Your task to perform on an android device: remove spam from my inbox in the gmail app Image 0: 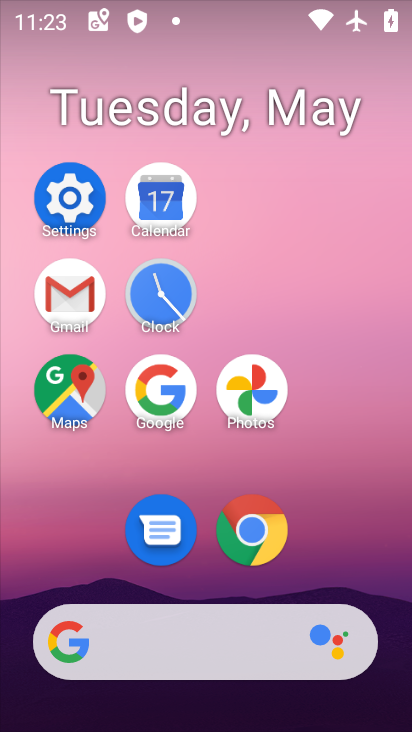
Step 0: click (79, 297)
Your task to perform on an android device: remove spam from my inbox in the gmail app Image 1: 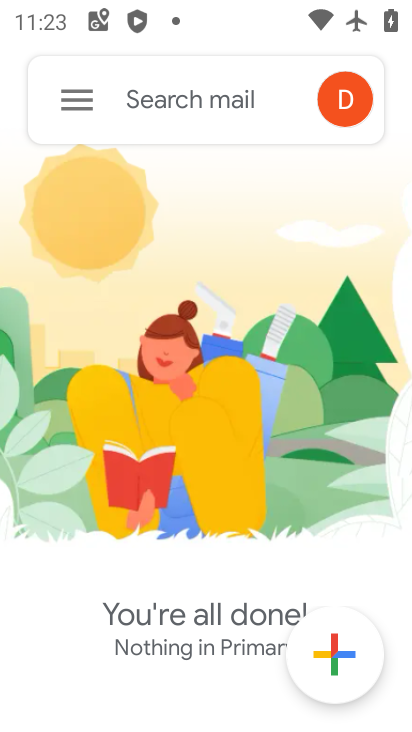
Step 1: click (66, 99)
Your task to perform on an android device: remove spam from my inbox in the gmail app Image 2: 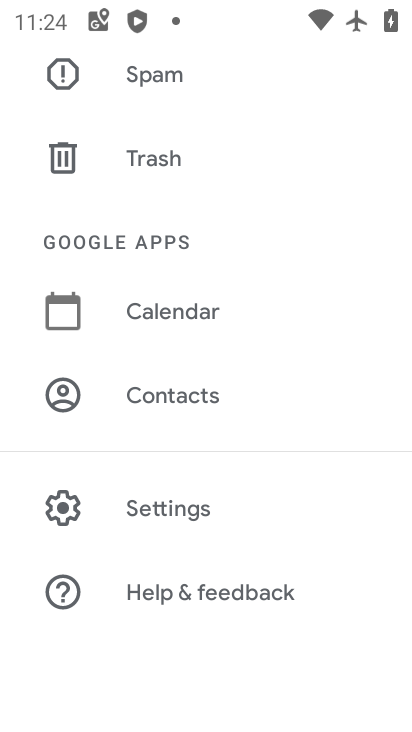
Step 2: click (168, 76)
Your task to perform on an android device: remove spam from my inbox in the gmail app Image 3: 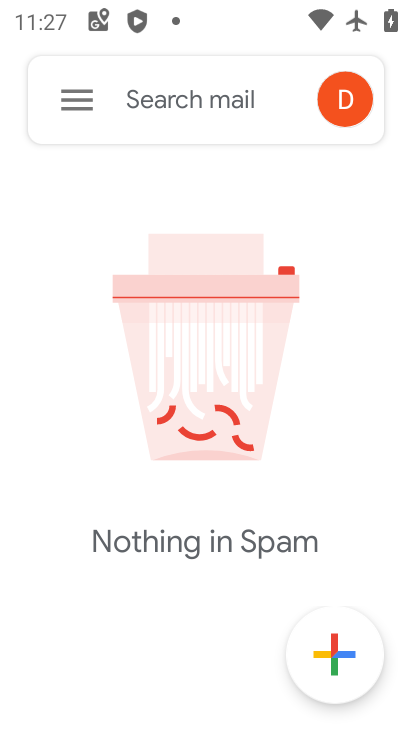
Step 3: task complete